Your task to perform on an android device: change the clock display to analog Image 0: 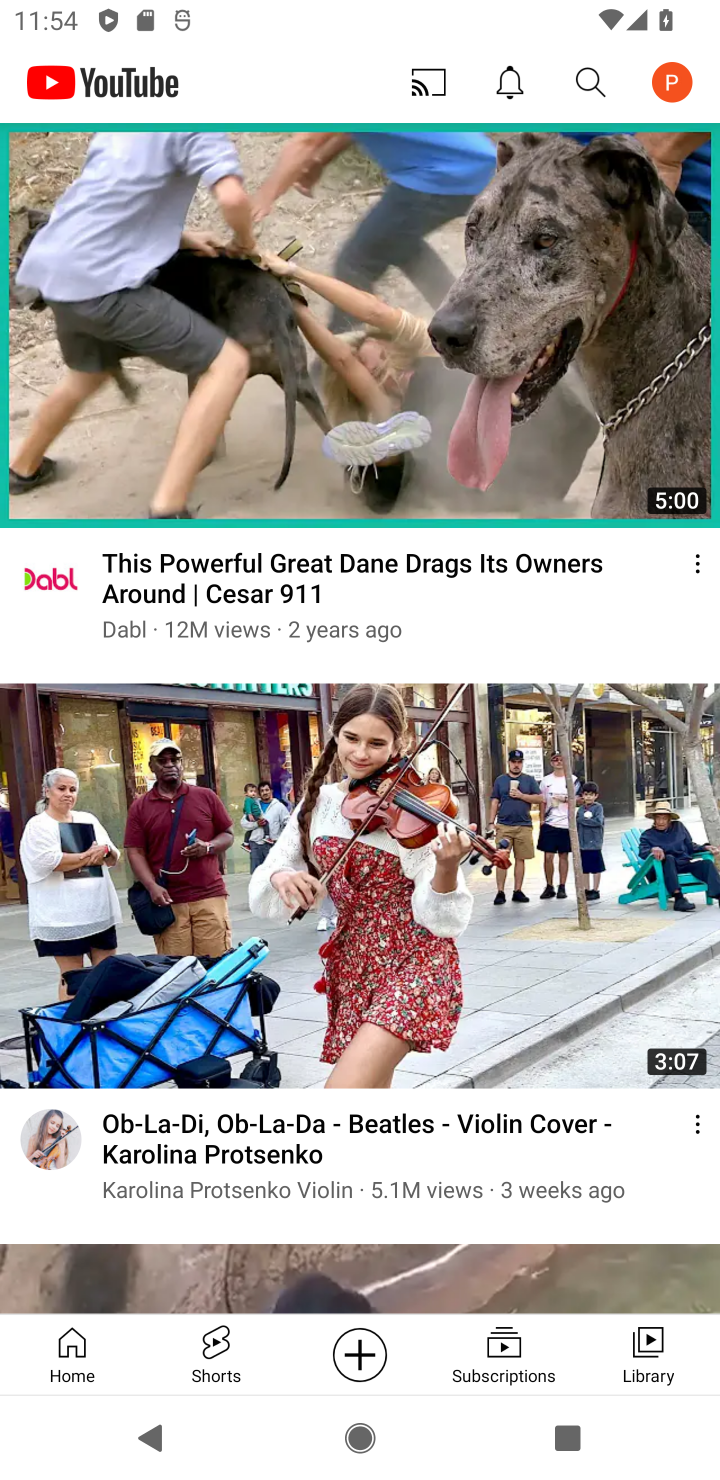
Step 0: press home button
Your task to perform on an android device: change the clock display to analog Image 1: 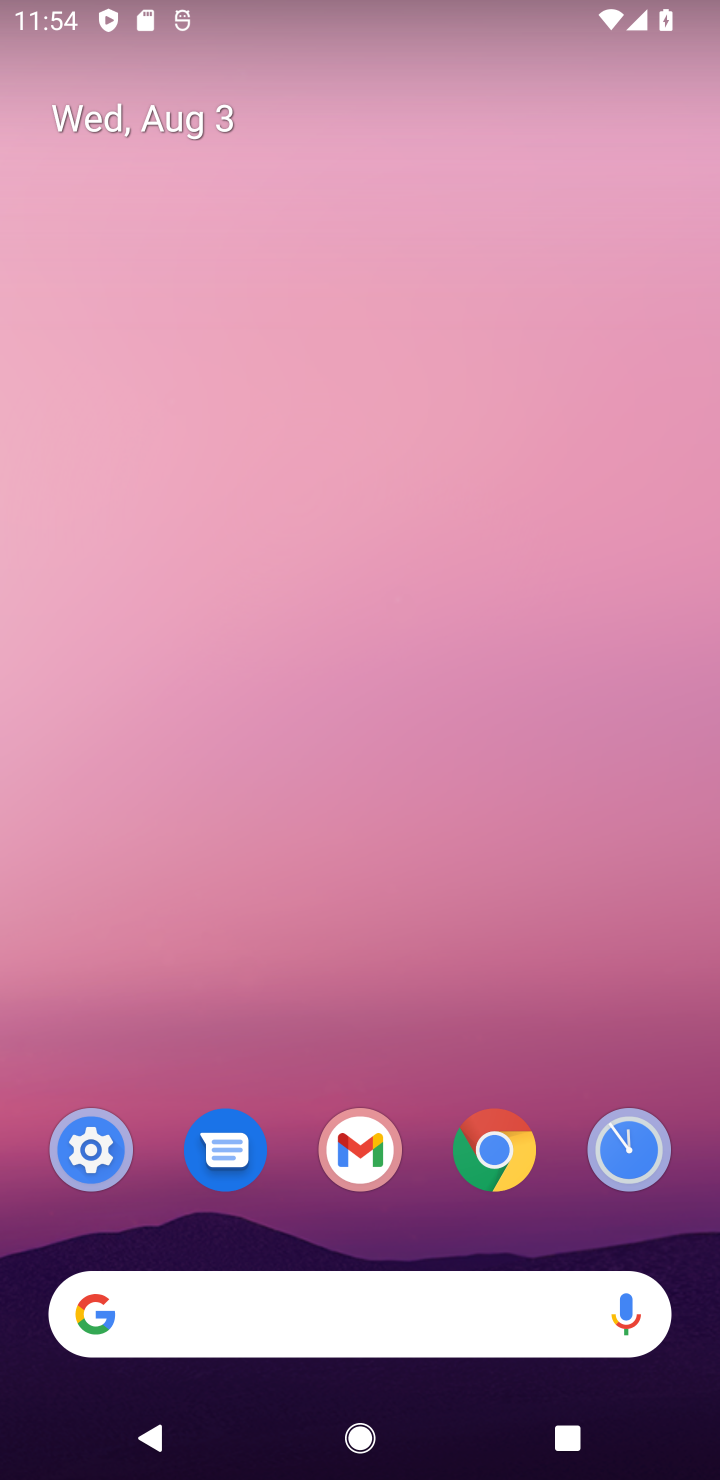
Step 1: drag from (560, 1014) to (574, 309)
Your task to perform on an android device: change the clock display to analog Image 2: 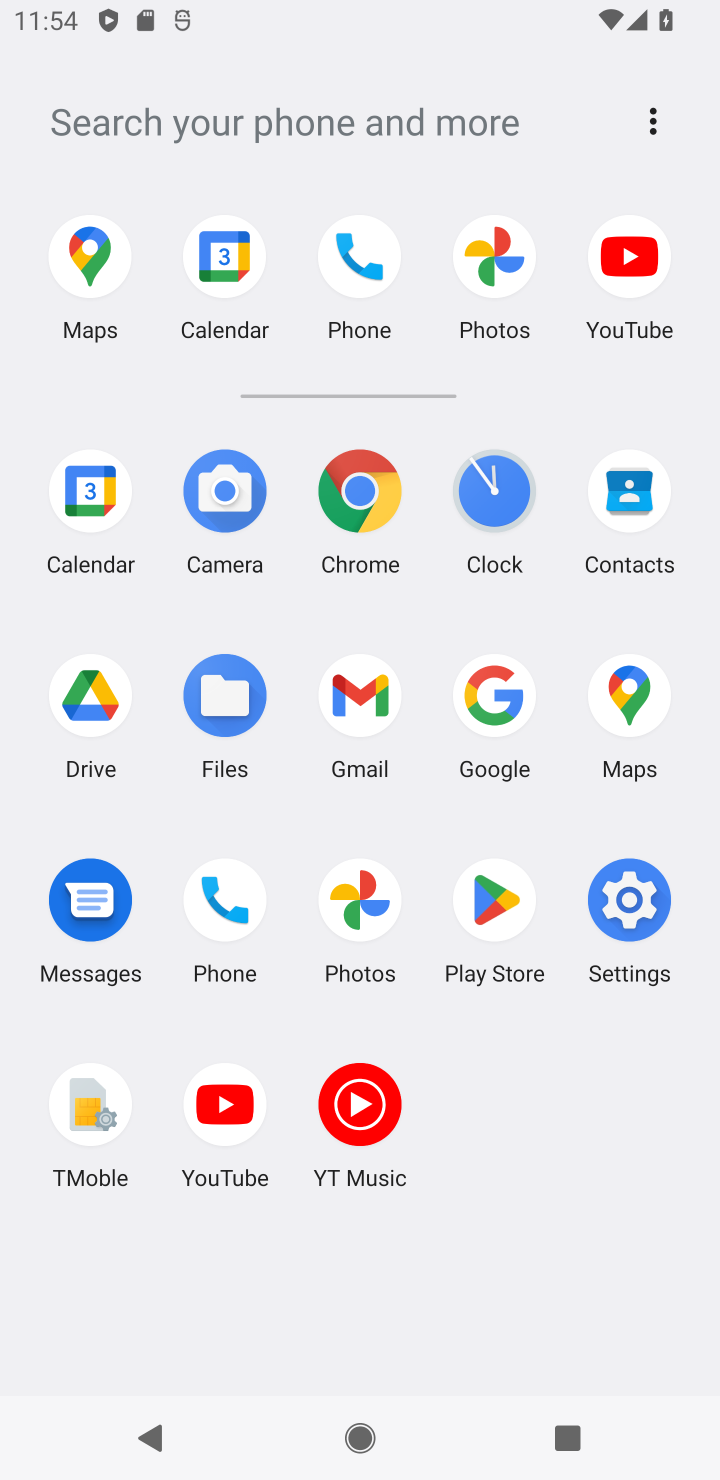
Step 2: click (487, 506)
Your task to perform on an android device: change the clock display to analog Image 3: 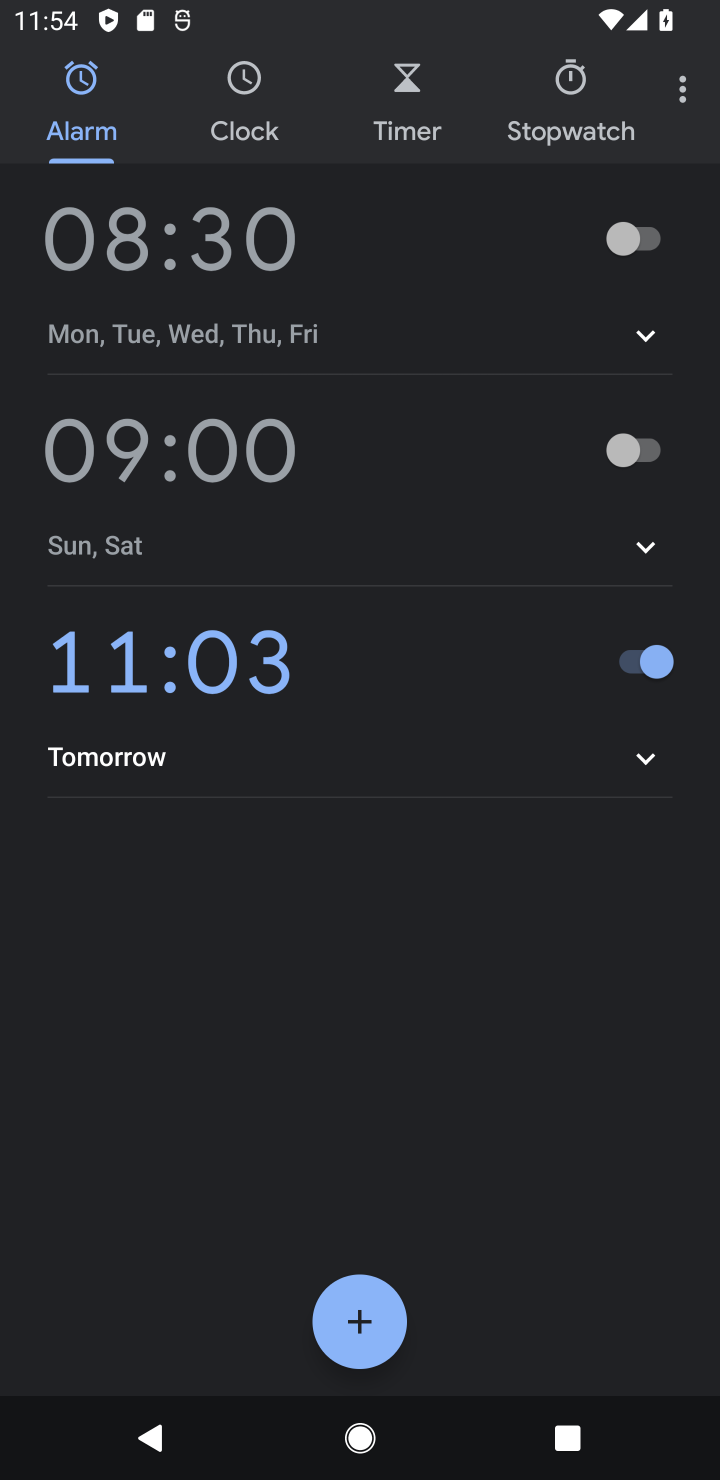
Step 3: click (682, 90)
Your task to perform on an android device: change the clock display to analog Image 4: 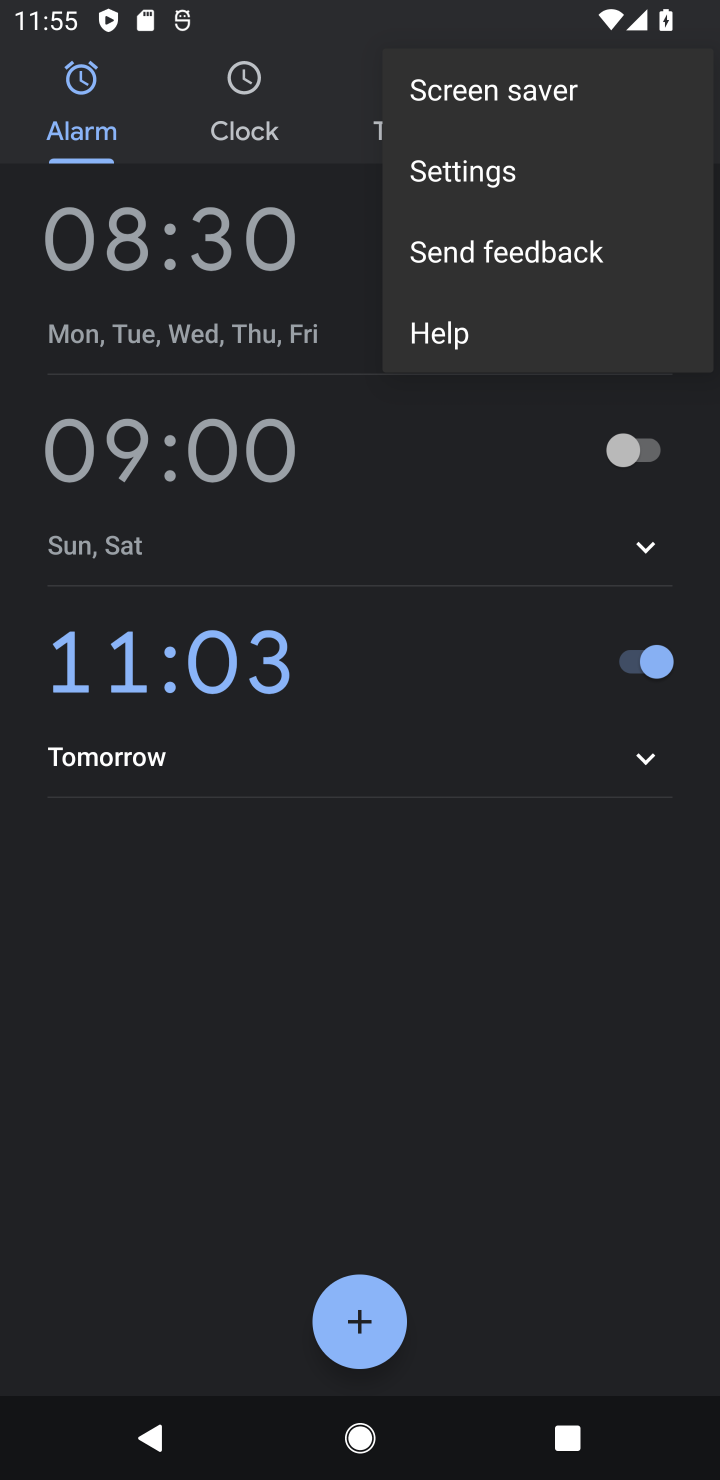
Step 4: click (540, 175)
Your task to perform on an android device: change the clock display to analog Image 5: 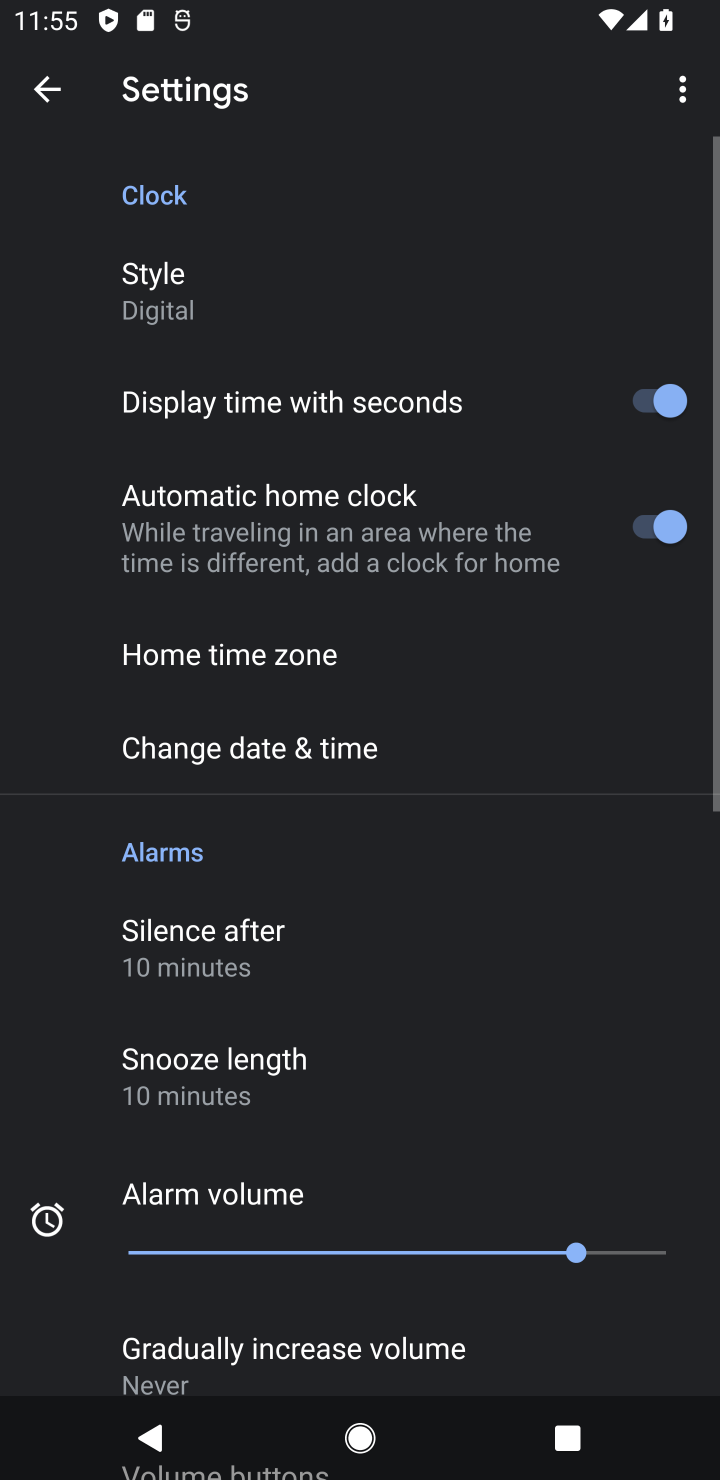
Step 5: drag from (544, 812) to (558, 683)
Your task to perform on an android device: change the clock display to analog Image 6: 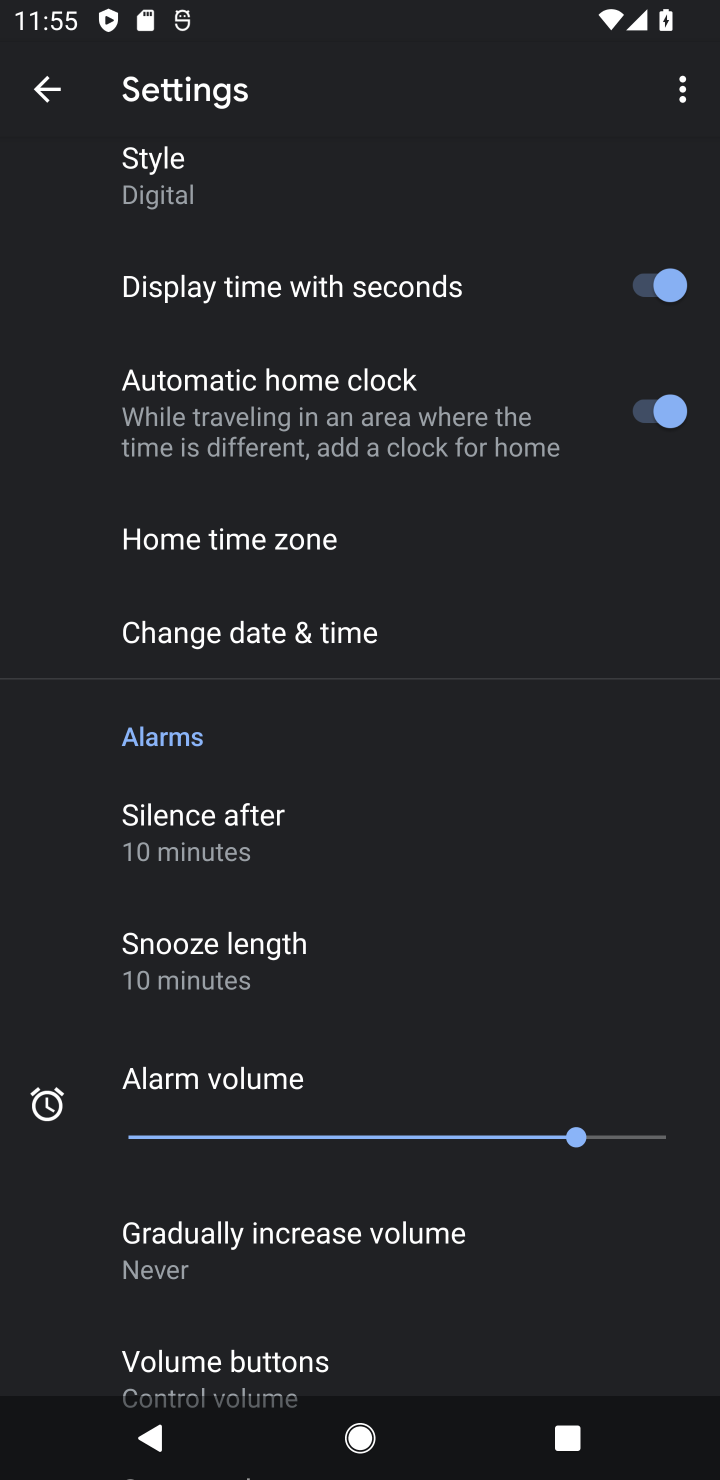
Step 6: drag from (555, 880) to (577, 664)
Your task to perform on an android device: change the clock display to analog Image 7: 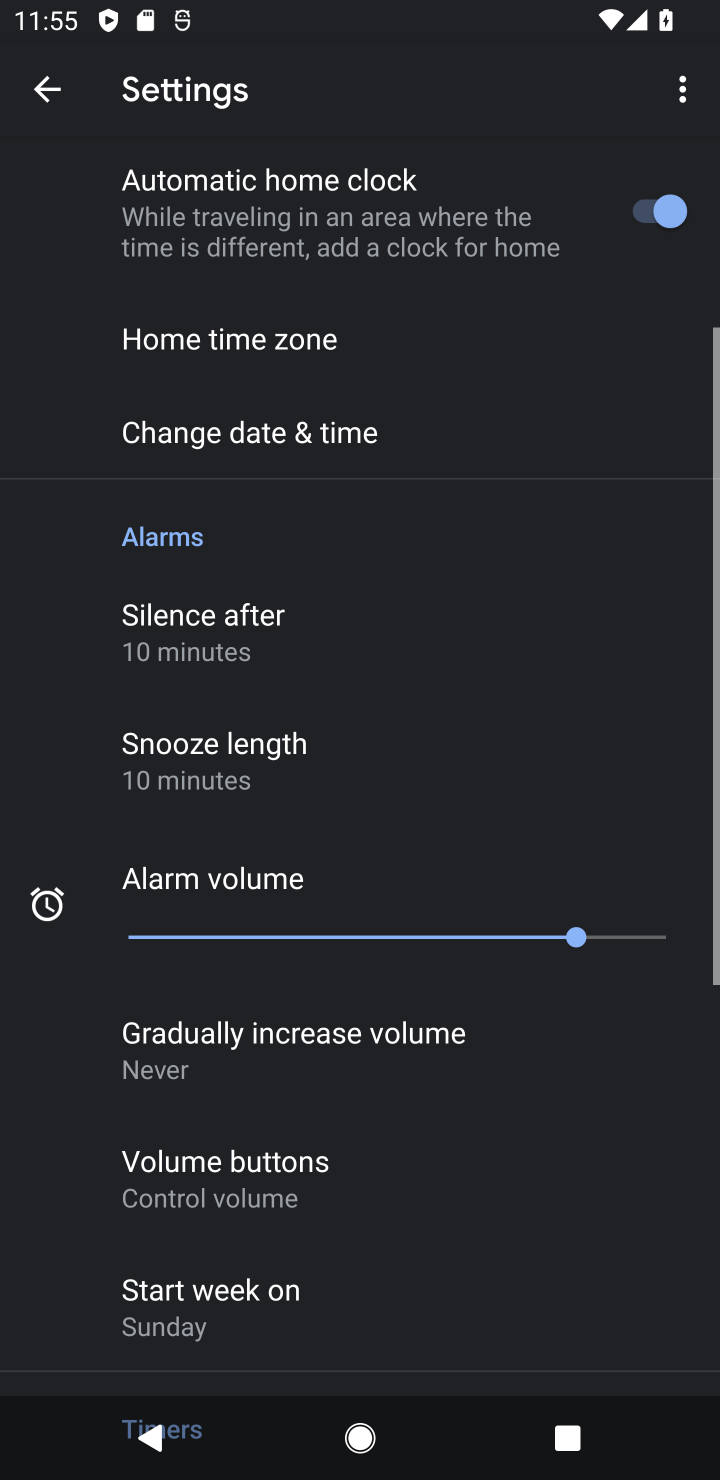
Step 7: drag from (564, 1117) to (597, 833)
Your task to perform on an android device: change the clock display to analog Image 8: 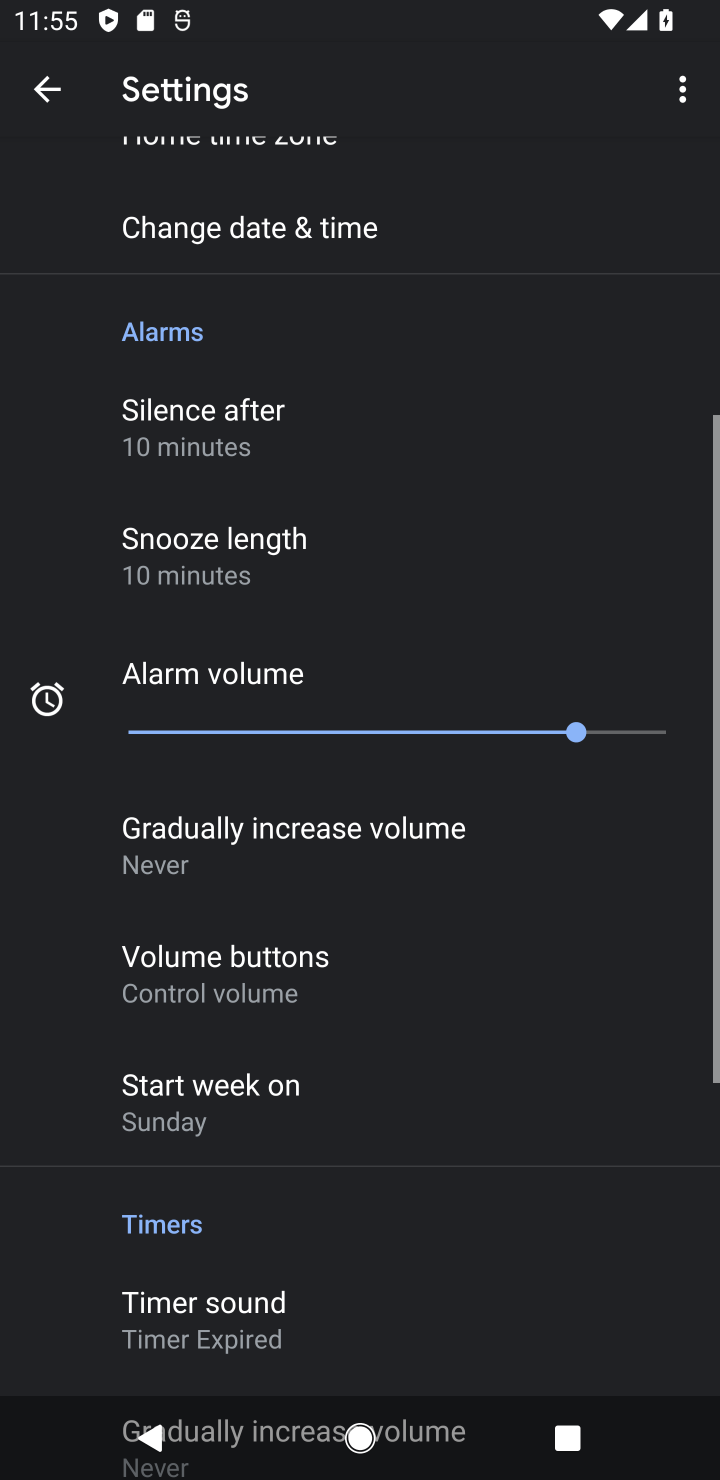
Step 8: drag from (598, 1102) to (608, 911)
Your task to perform on an android device: change the clock display to analog Image 9: 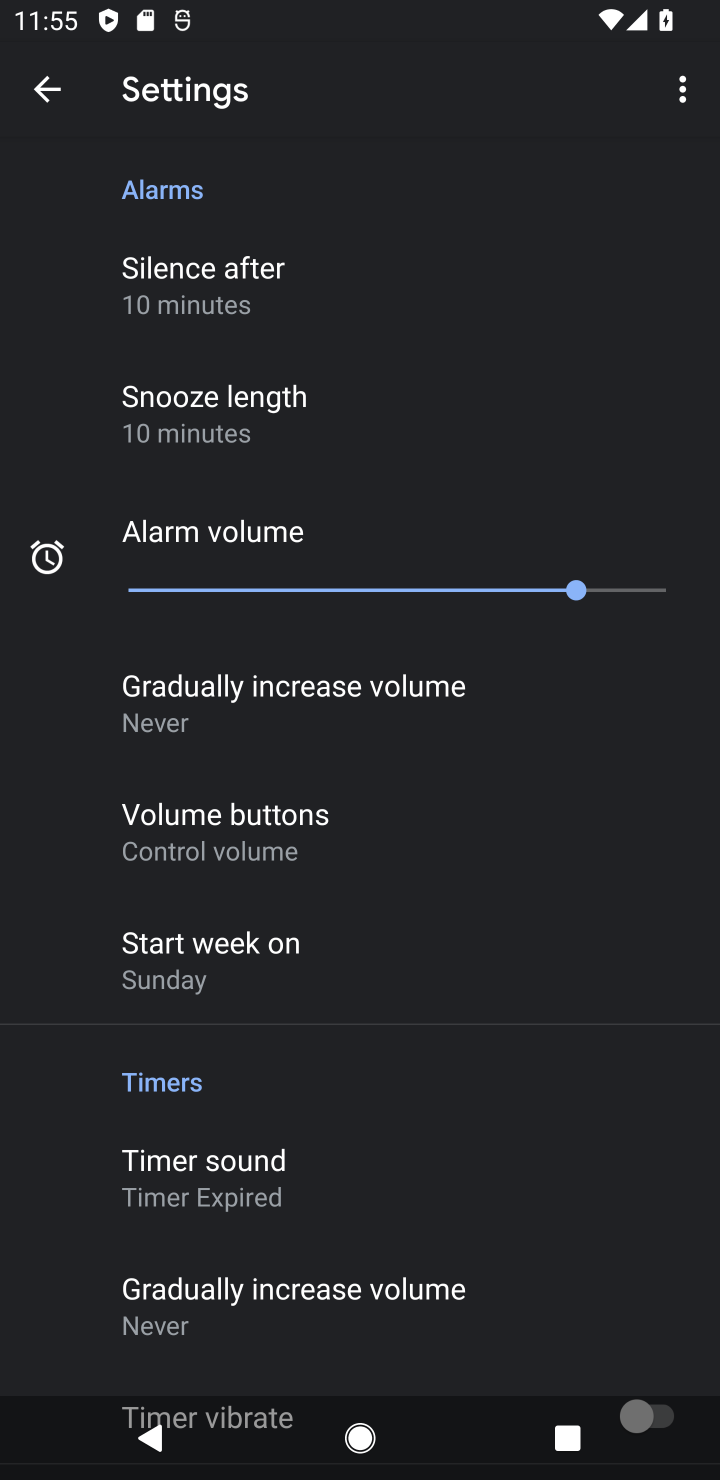
Step 9: drag from (597, 1180) to (620, 852)
Your task to perform on an android device: change the clock display to analog Image 10: 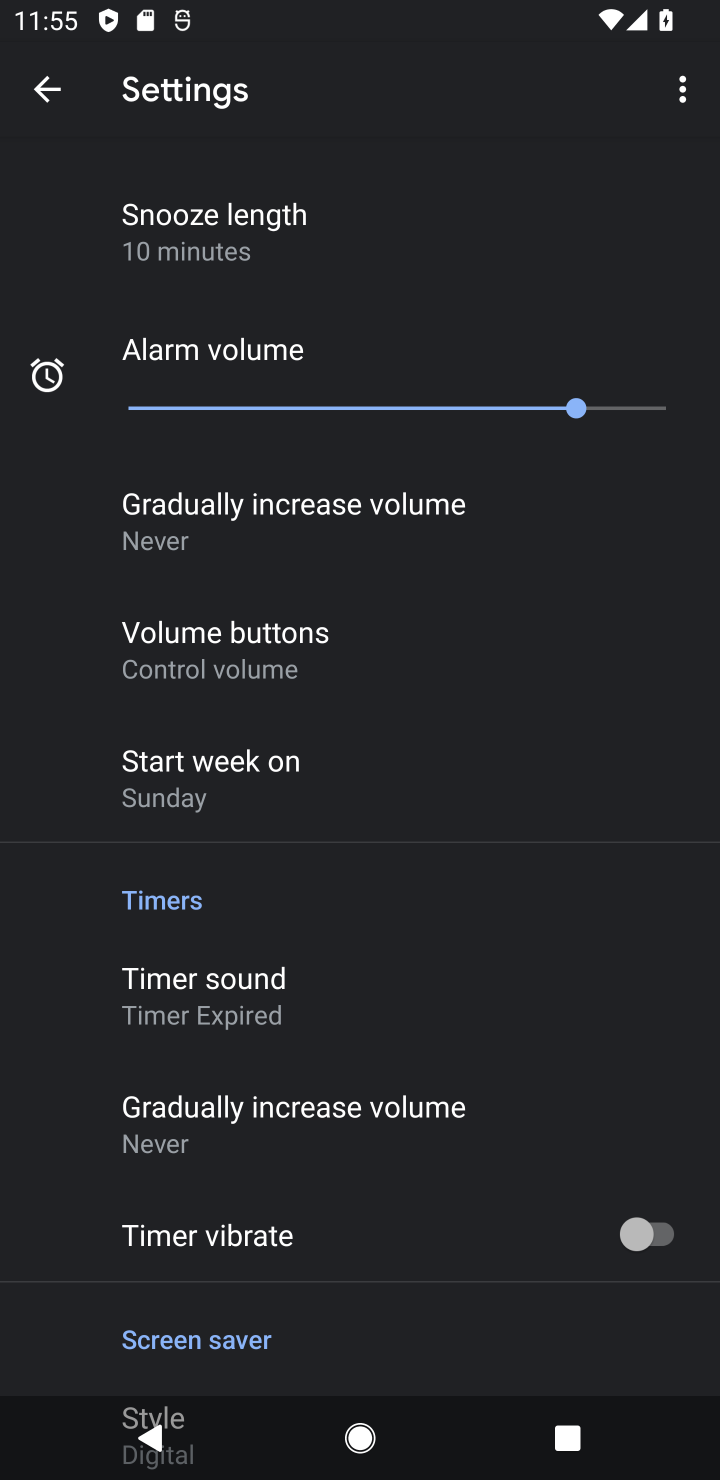
Step 10: drag from (484, 1223) to (513, 944)
Your task to perform on an android device: change the clock display to analog Image 11: 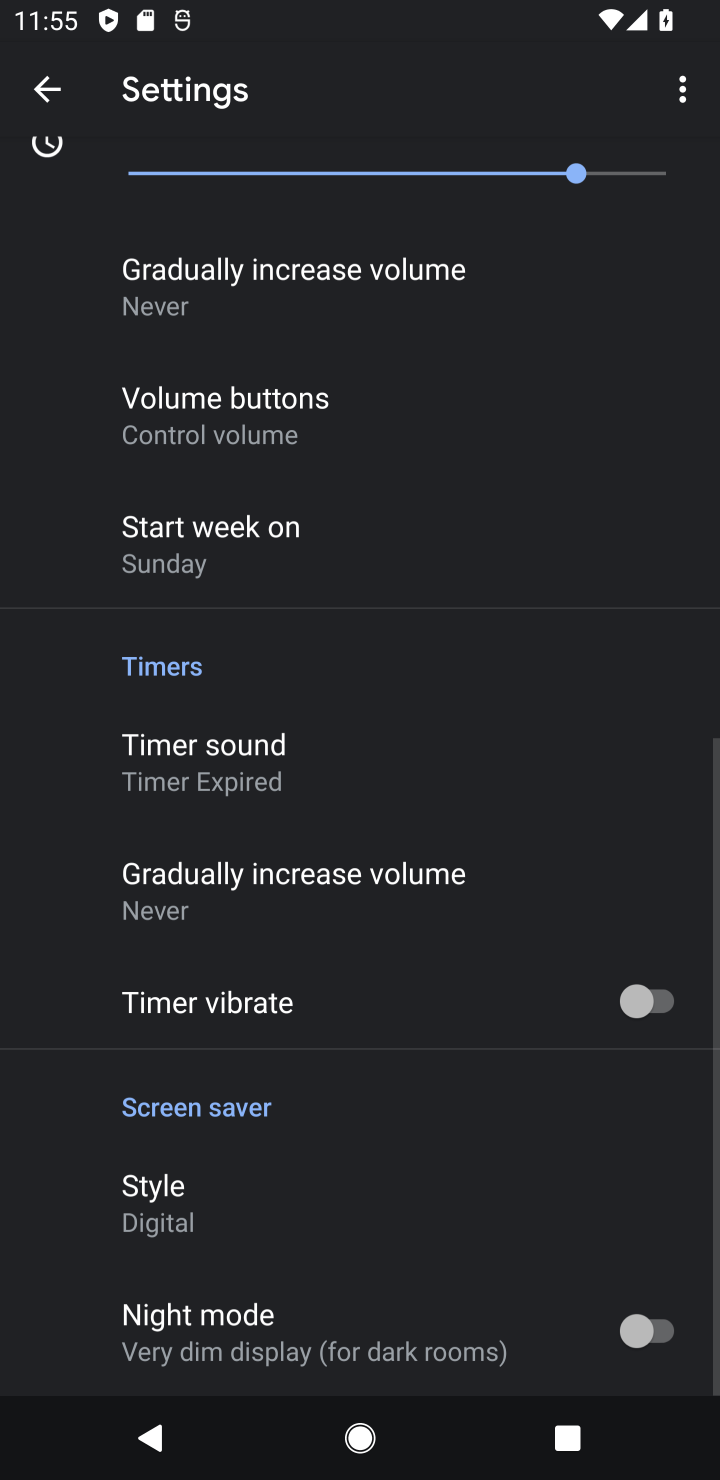
Step 11: drag from (517, 586) to (517, 886)
Your task to perform on an android device: change the clock display to analog Image 12: 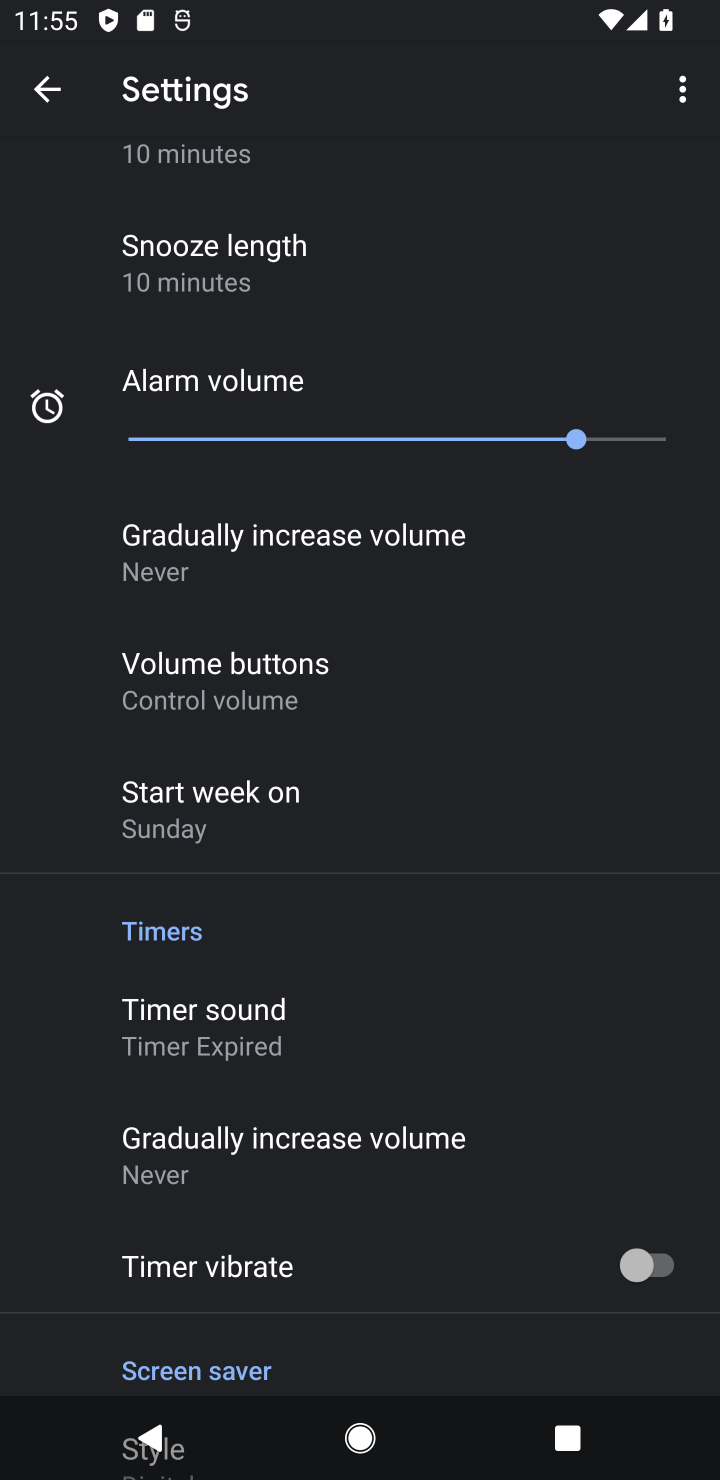
Step 12: drag from (519, 594) to (521, 861)
Your task to perform on an android device: change the clock display to analog Image 13: 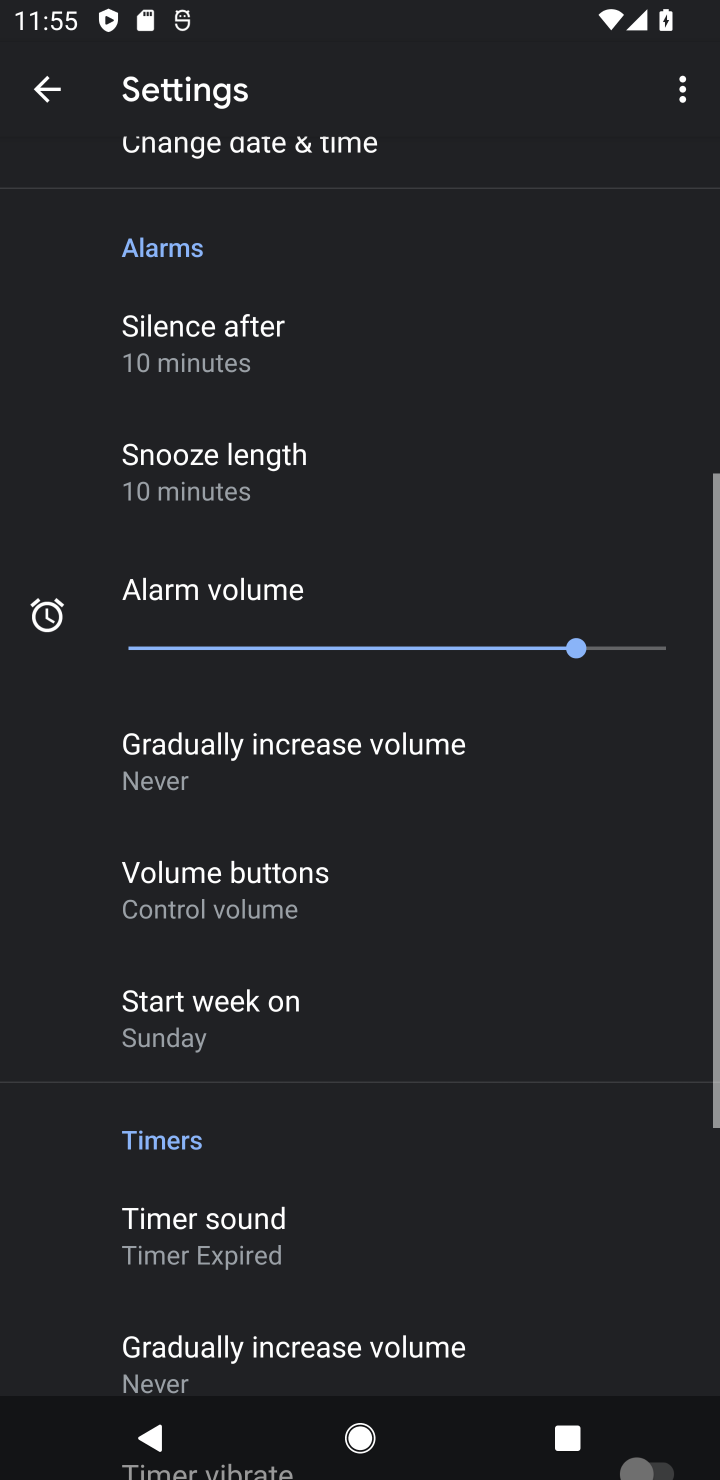
Step 13: drag from (513, 406) to (509, 768)
Your task to perform on an android device: change the clock display to analog Image 14: 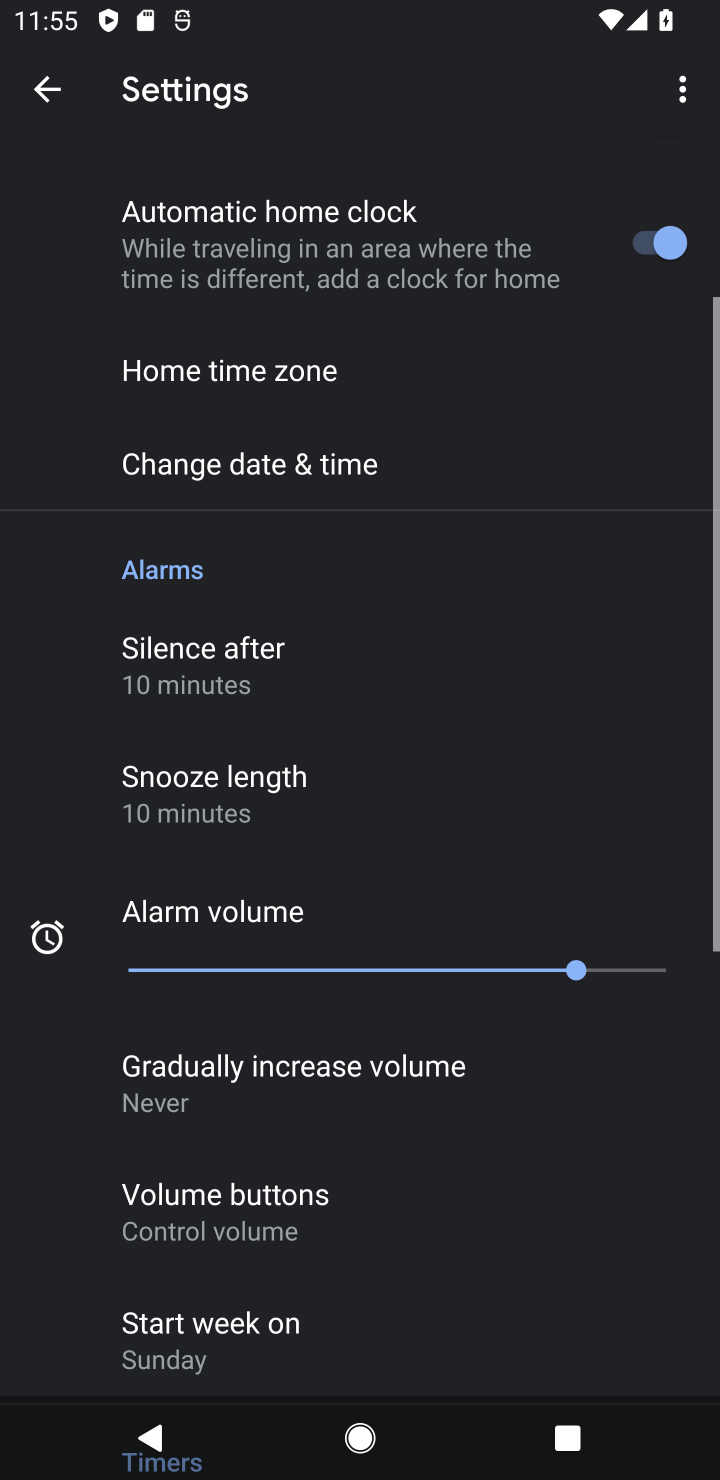
Step 14: drag from (502, 316) to (494, 739)
Your task to perform on an android device: change the clock display to analog Image 15: 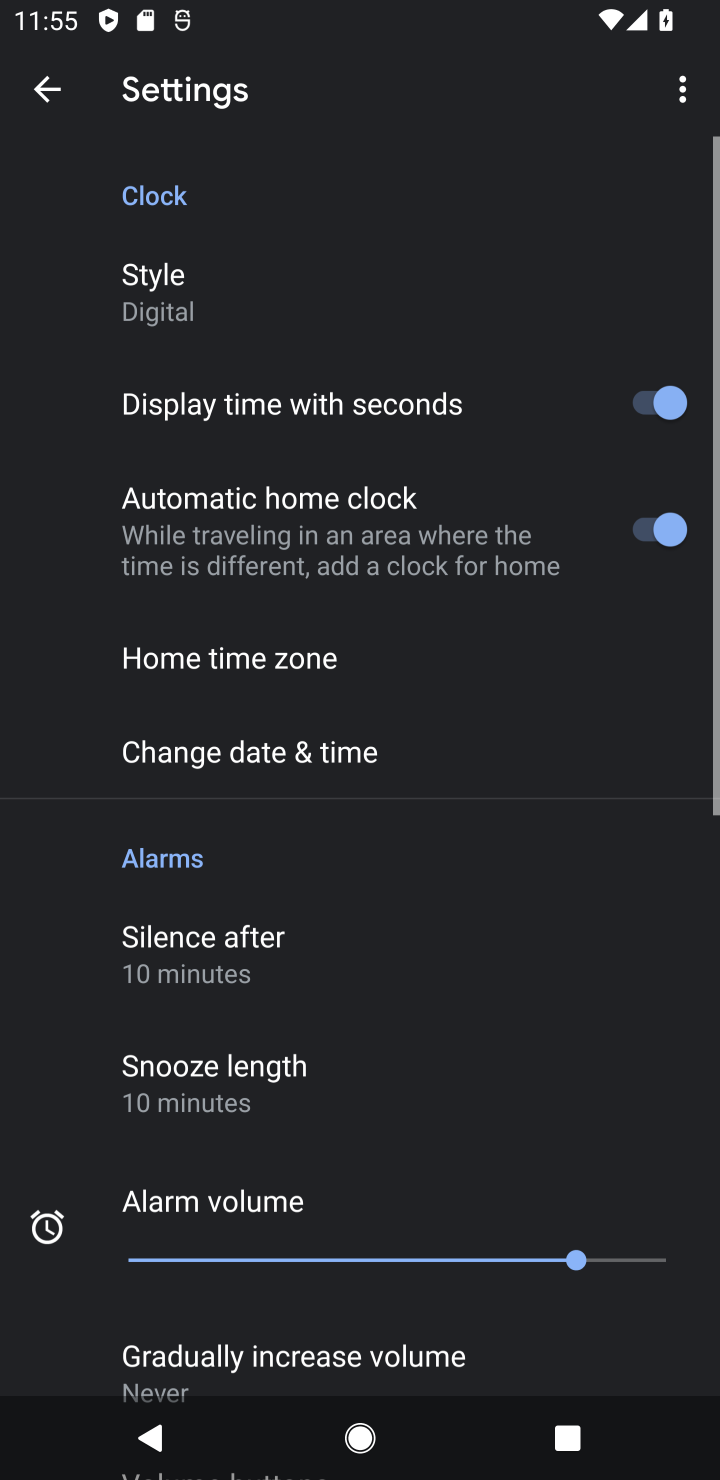
Step 15: click (304, 320)
Your task to perform on an android device: change the clock display to analog Image 16: 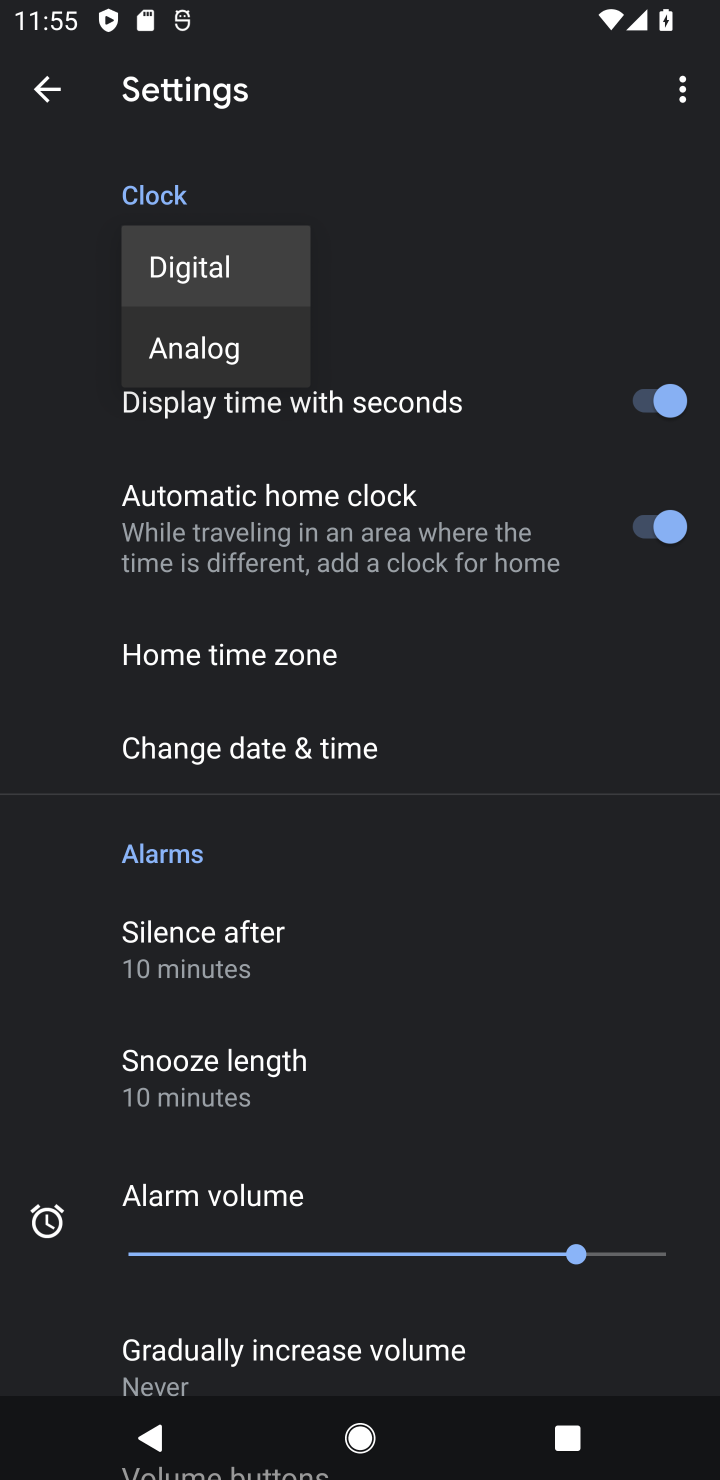
Step 16: click (241, 352)
Your task to perform on an android device: change the clock display to analog Image 17: 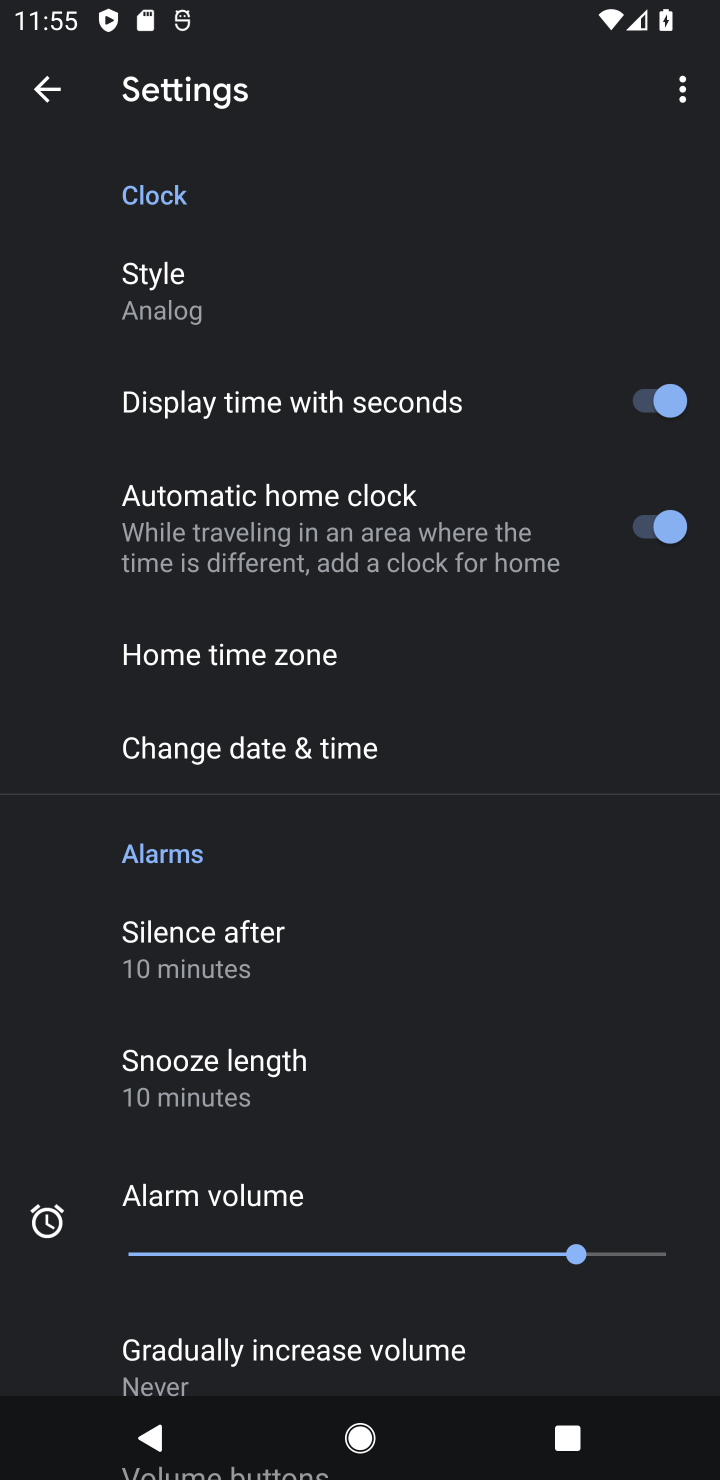
Step 17: task complete